Your task to perform on an android device: Open Amazon Image 0: 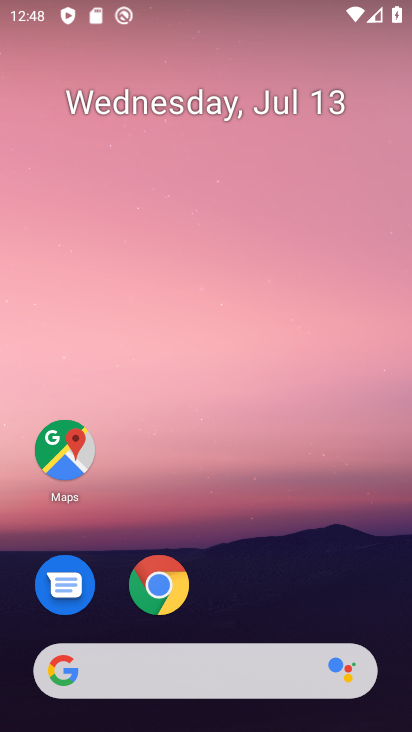
Step 0: click (166, 582)
Your task to perform on an android device: Open Amazon Image 1: 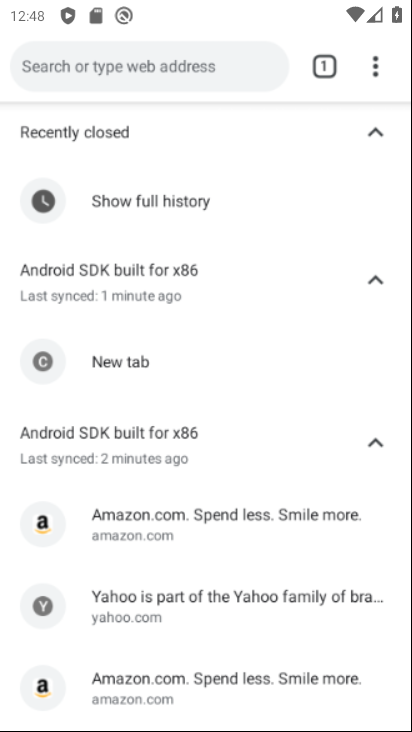
Step 1: drag from (381, 67) to (342, 127)
Your task to perform on an android device: Open Amazon Image 2: 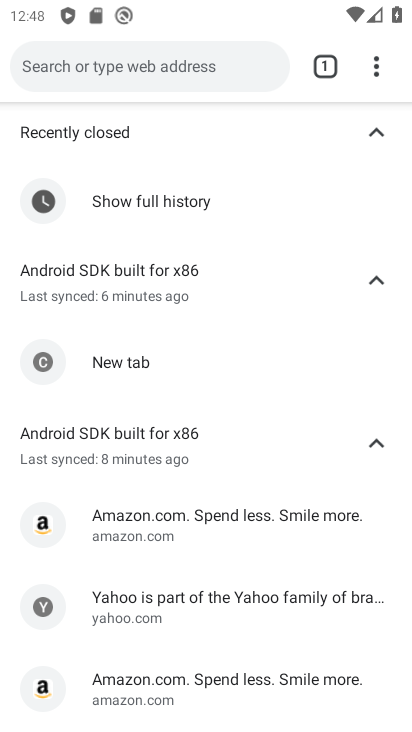
Step 2: click (380, 74)
Your task to perform on an android device: Open Amazon Image 3: 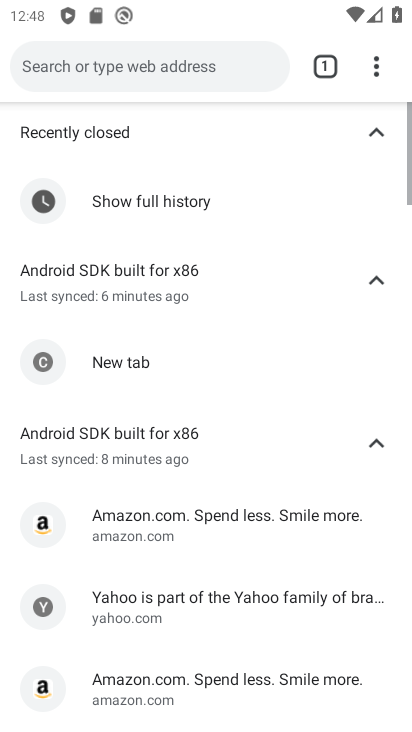
Step 3: drag from (374, 79) to (262, 135)
Your task to perform on an android device: Open Amazon Image 4: 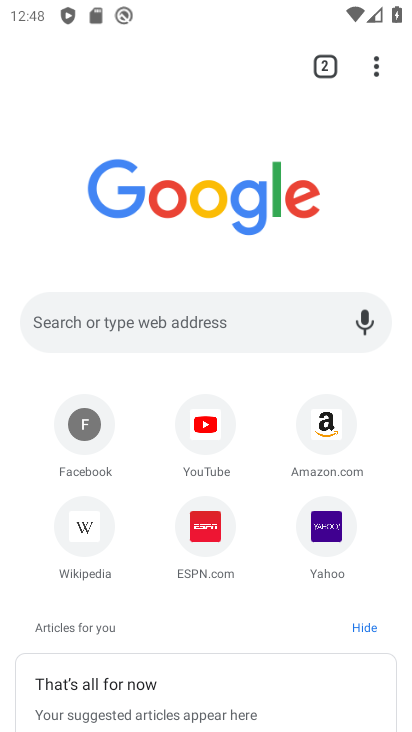
Step 4: click (316, 411)
Your task to perform on an android device: Open Amazon Image 5: 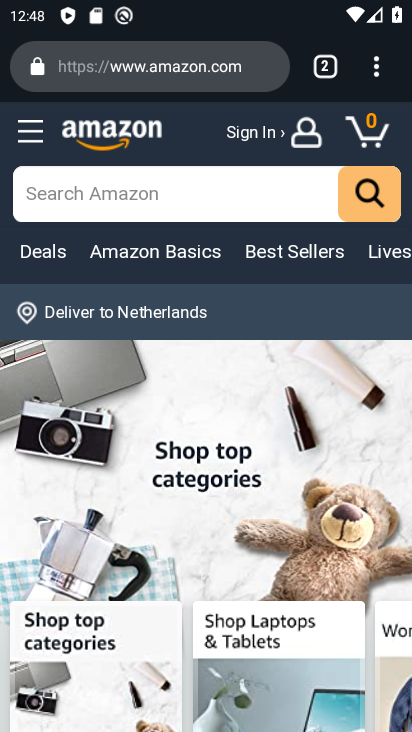
Step 5: task complete